Your task to perform on an android device: find snoozed emails in the gmail app Image 0: 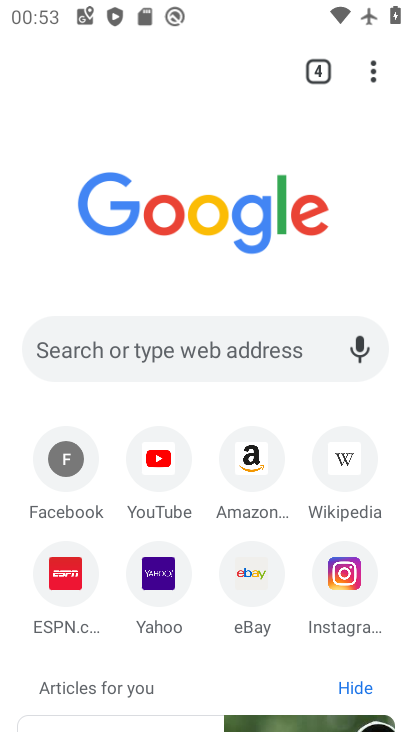
Step 0: press home button
Your task to perform on an android device: find snoozed emails in the gmail app Image 1: 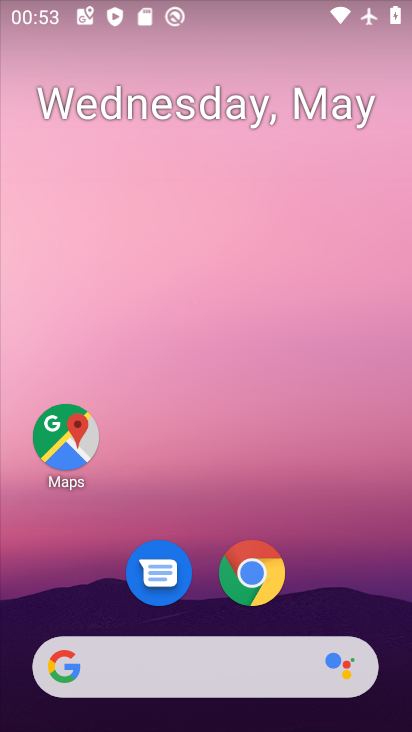
Step 1: drag from (361, 551) to (324, 271)
Your task to perform on an android device: find snoozed emails in the gmail app Image 2: 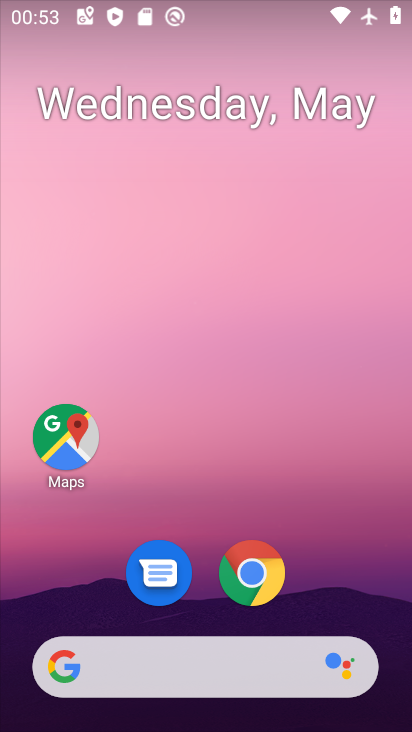
Step 2: drag from (324, 271) to (320, 176)
Your task to perform on an android device: find snoozed emails in the gmail app Image 3: 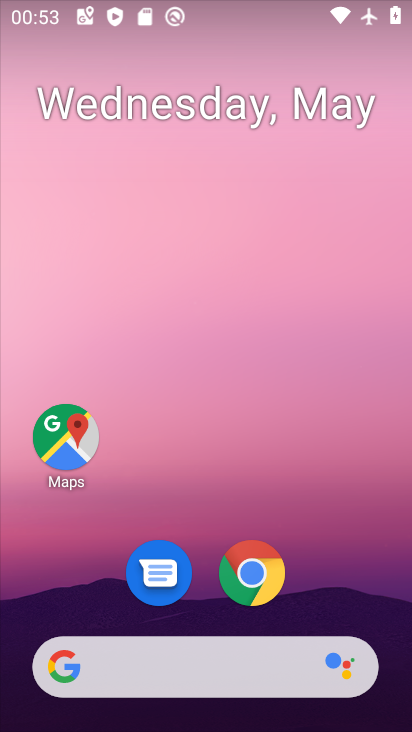
Step 3: drag from (317, 532) to (302, 413)
Your task to perform on an android device: find snoozed emails in the gmail app Image 4: 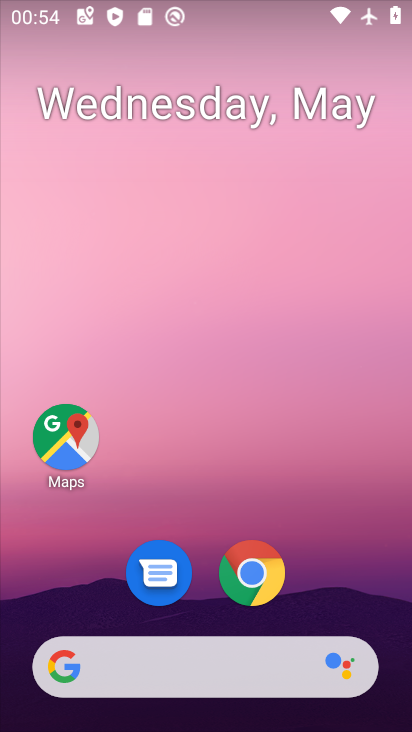
Step 4: drag from (335, 574) to (267, 254)
Your task to perform on an android device: find snoozed emails in the gmail app Image 5: 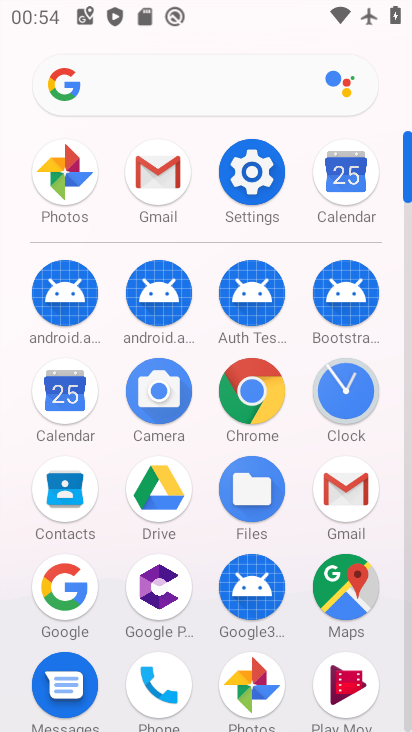
Step 5: click (157, 172)
Your task to perform on an android device: find snoozed emails in the gmail app Image 6: 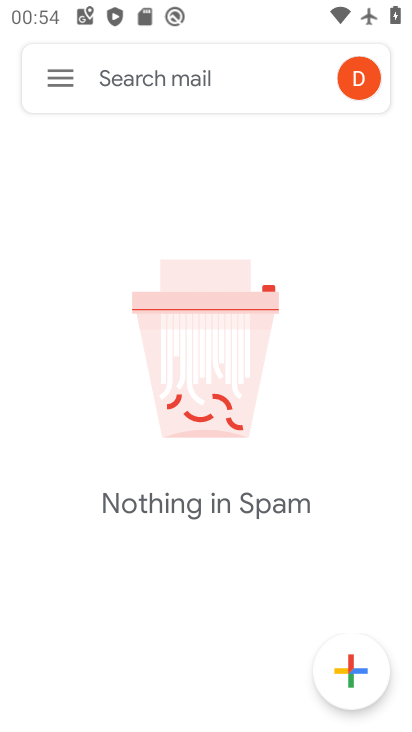
Step 6: click (60, 77)
Your task to perform on an android device: find snoozed emails in the gmail app Image 7: 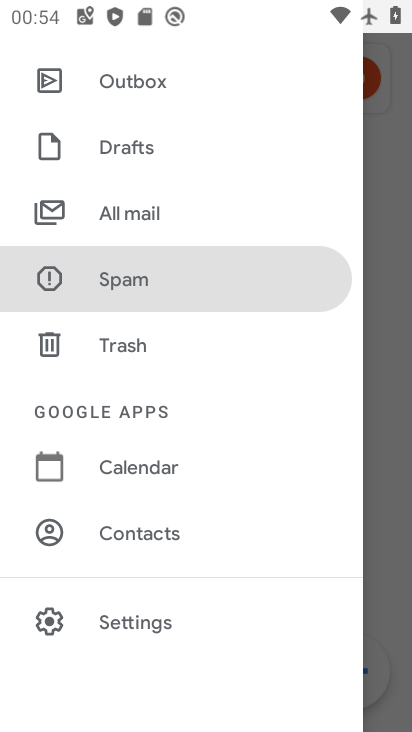
Step 7: drag from (187, 193) to (206, 426)
Your task to perform on an android device: find snoozed emails in the gmail app Image 8: 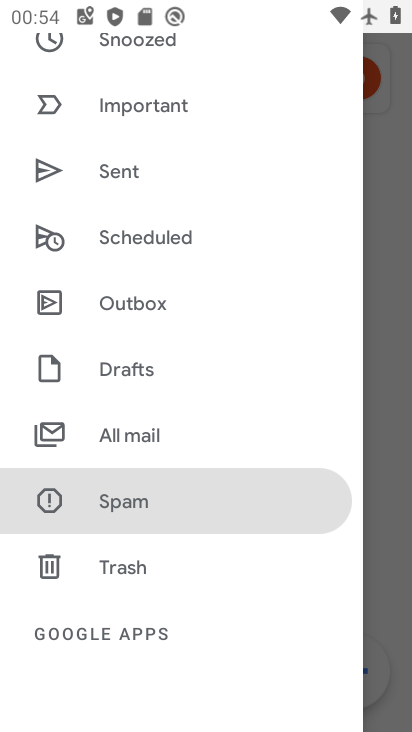
Step 8: click (175, 42)
Your task to perform on an android device: find snoozed emails in the gmail app Image 9: 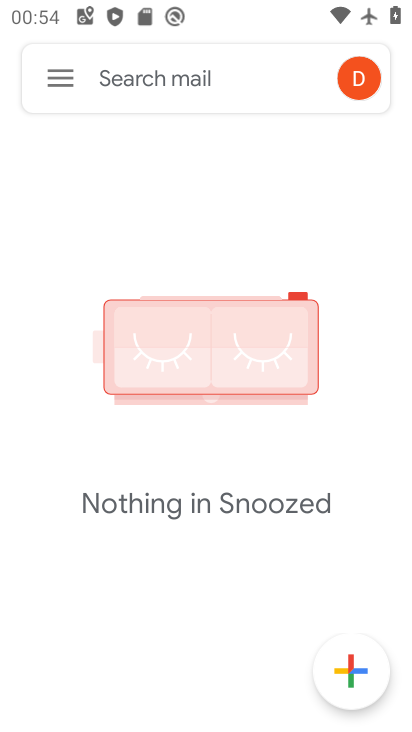
Step 9: task complete